Your task to perform on an android device: open app "Roku - Official Remote Control" Image 0: 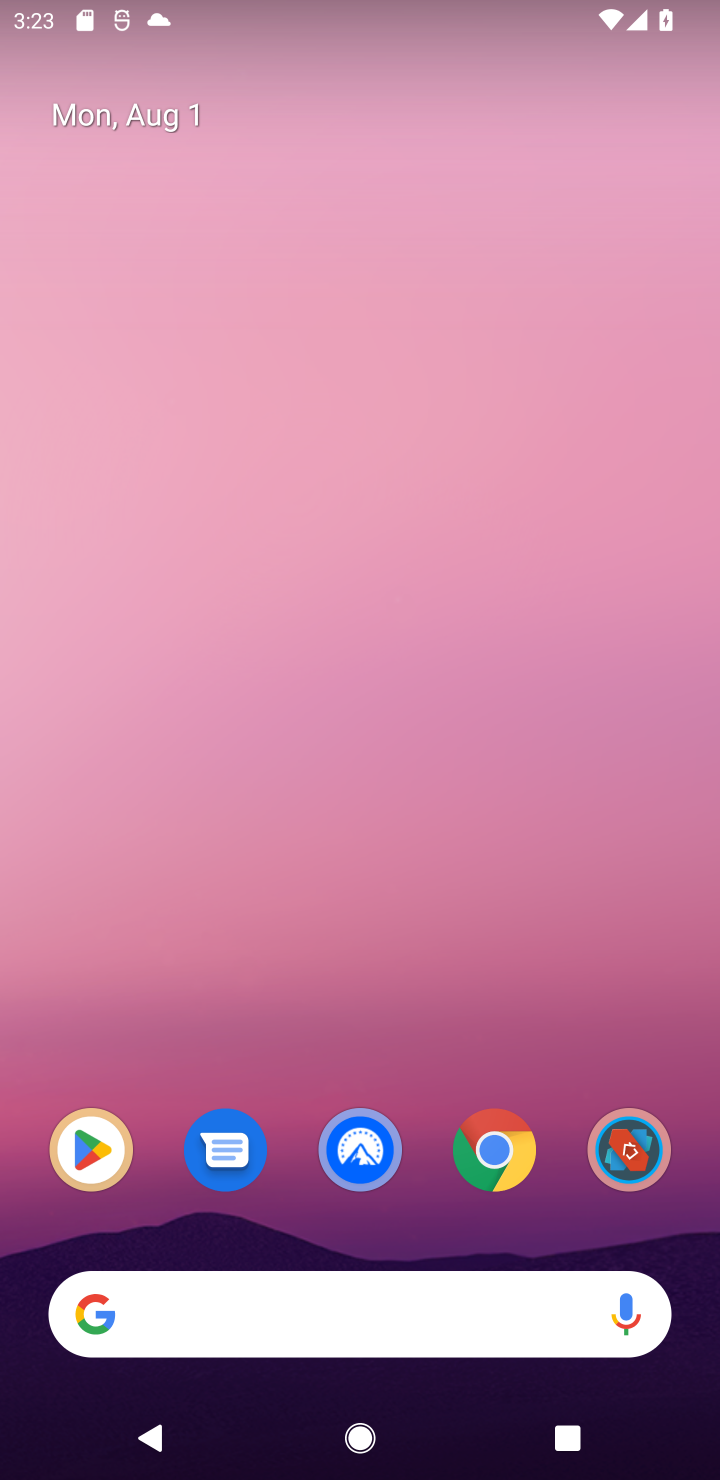
Step 0: drag from (291, 1239) to (344, 8)
Your task to perform on an android device: open app "Roku - Official Remote Control" Image 1: 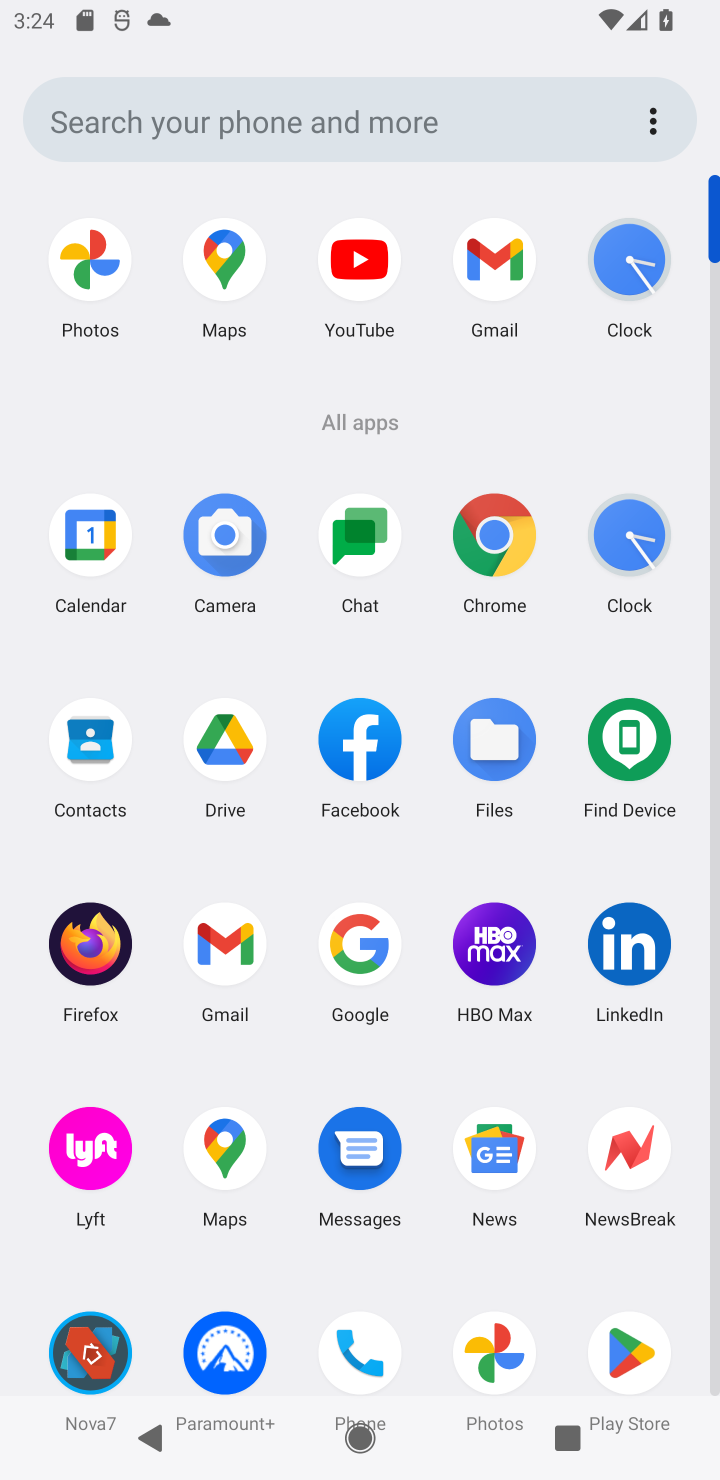
Step 1: task complete